Your task to perform on an android device: Show me popular games on the Play Store Image 0: 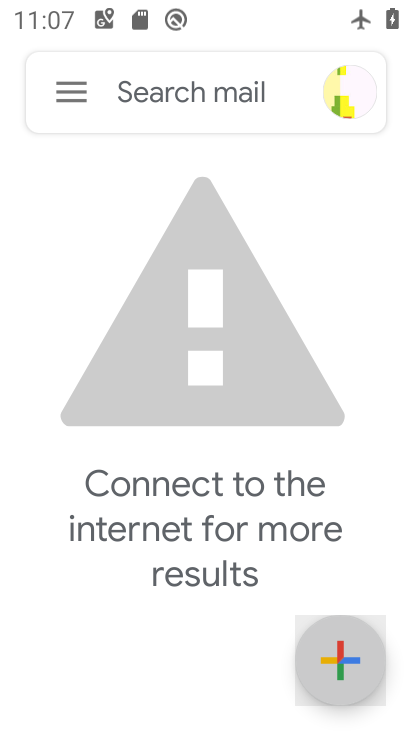
Step 0: press home button
Your task to perform on an android device: Show me popular games on the Play Store Image 1: 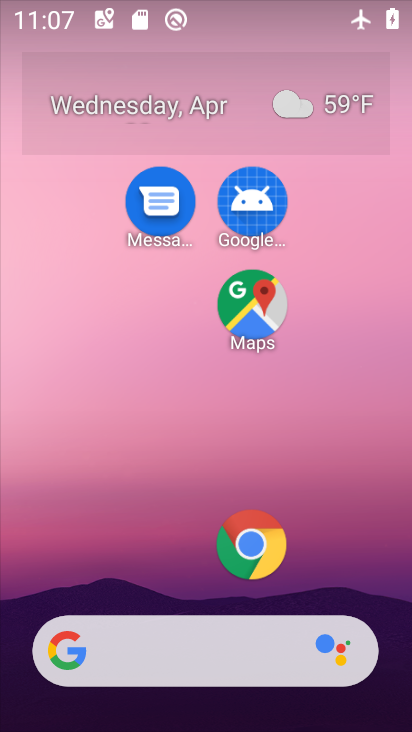
Step 1: drag from (183, 572) to (183, 198)
Your task to perform on an android device: Show me popular games on the Play Store Image 2: 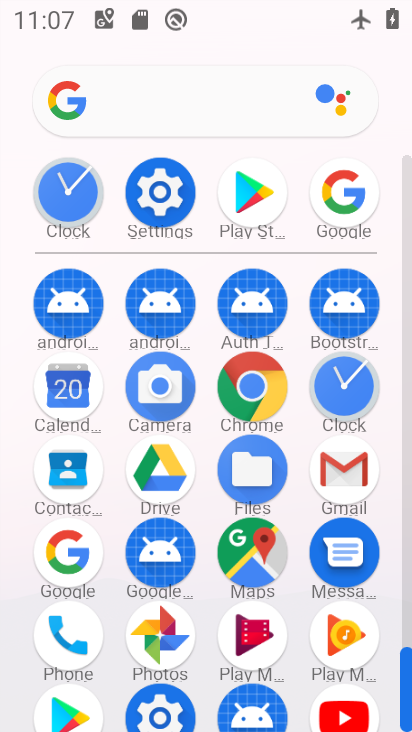
Step 2: click (246, 209)
Your task to perform on an android device: Show me popular games on the Play Store Image 3: 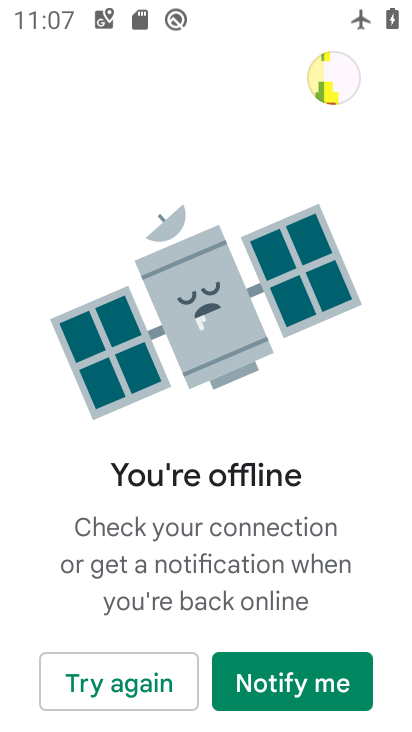
Step 3: task complete